Your task to perform on an android device: Open Yahoo.com Image 0: 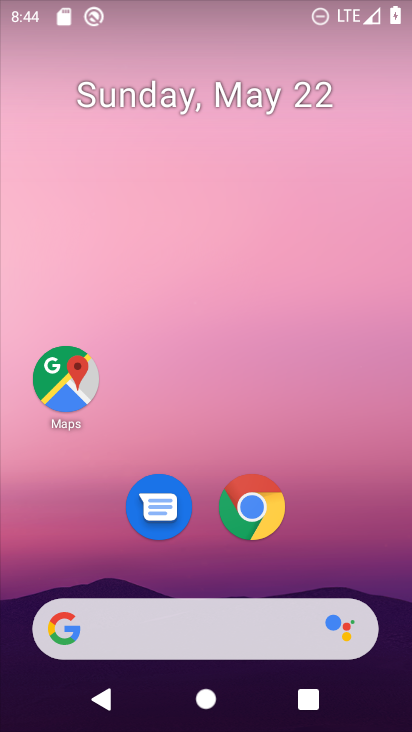
Step 0: click (292, 622)
Your task to perform on an android device: Open Yahoo.com Image 1: 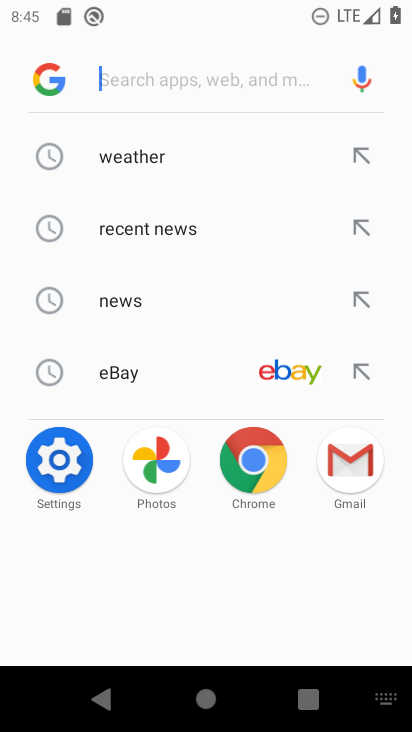
Step 1: type "yahoo.com"
Your task to perform on an android device: Open Yahoo.com Image 2: 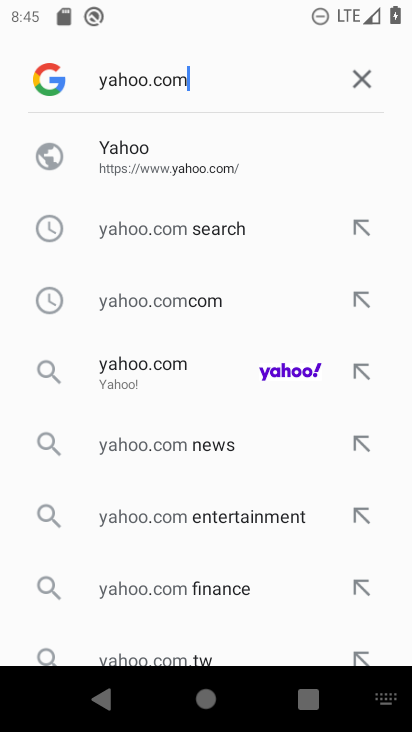
Step 2: click (201, 176)
Your task to perform on an android device: Open Yahoo.com Image 3: 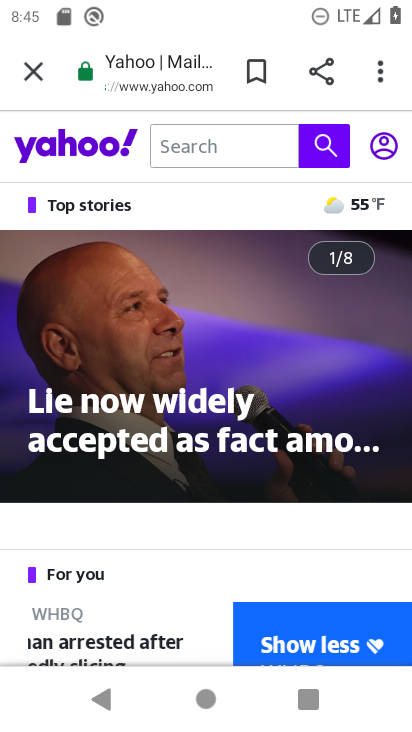
Step 3: task complete